Your task to perform on an android device: open a bookmark in the chrome app Image 0: 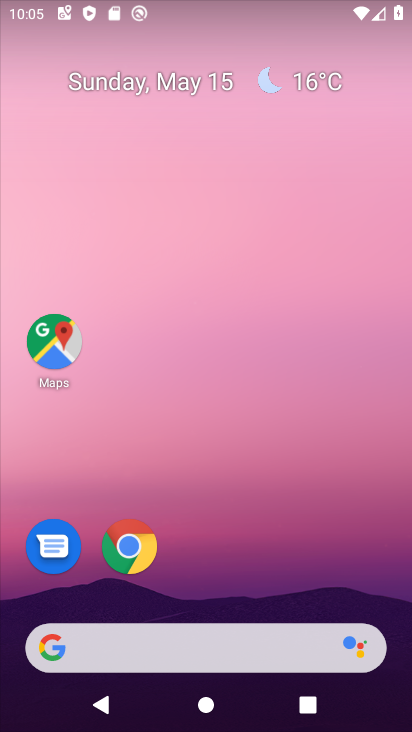
Step 0: drag from (293, 679) to (201, 196)
Your task to perform on an android device: open a bookmark in the chrome app Image 1: 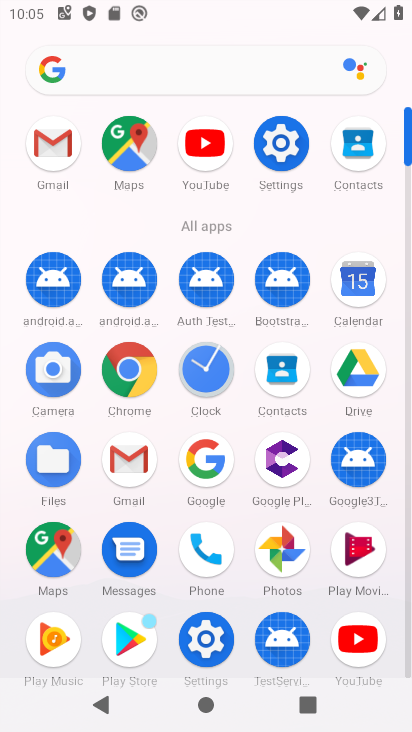
Step 1: click (115, 375)
Your task to perform on an android device: open a bookmark in the chrome app Image 2: 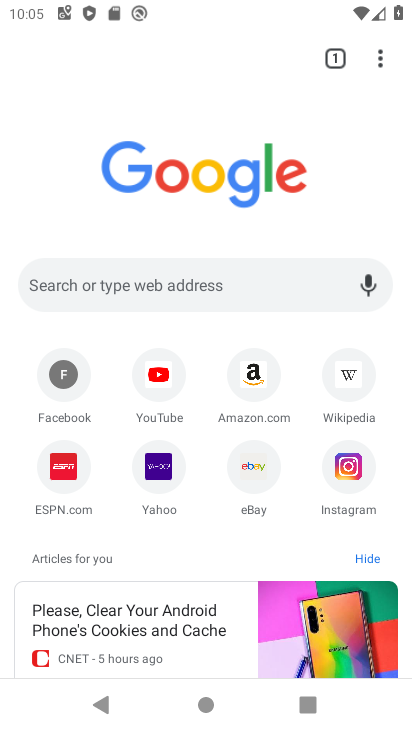
Step 2: click (373, 56)
Your task to perform on an android device: open a bookmark in the chrome app Image 3: 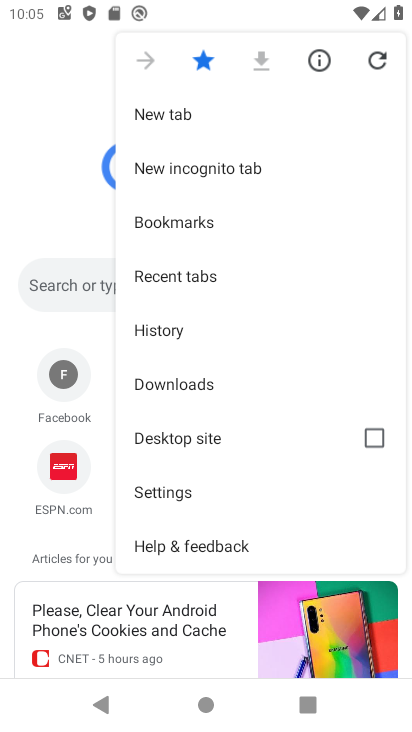
Step 3: click (184, 225)
Your task to perform on an android device: open a bookmark in the chrome app Image 4: 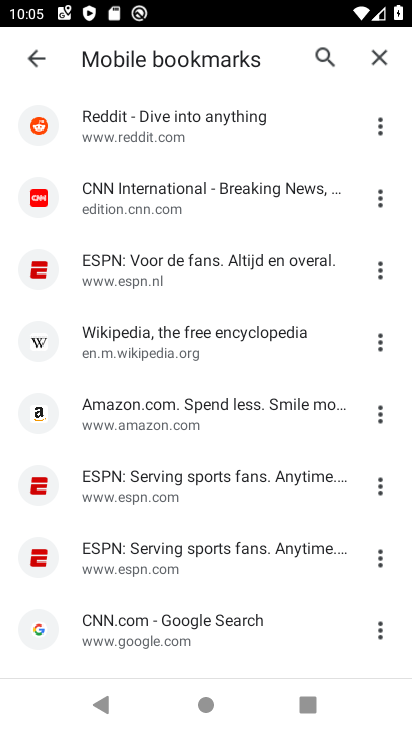
Step 4: task complete